Your task to perform on an android device: Open the web browser Image 0: 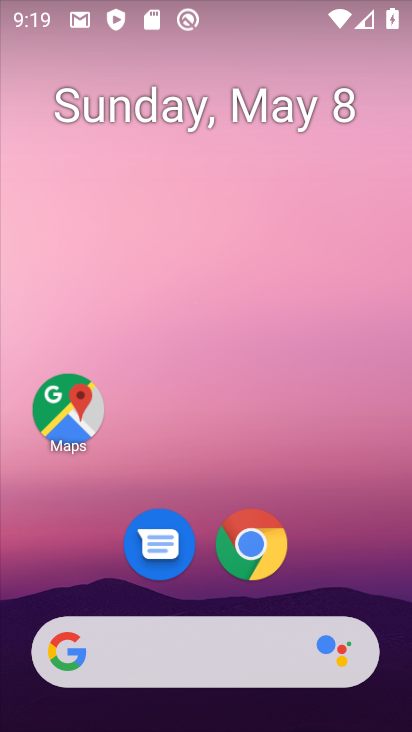
Step 0: click (291, 532)
Your task to perform on an android device: Open the web browser Image 1: 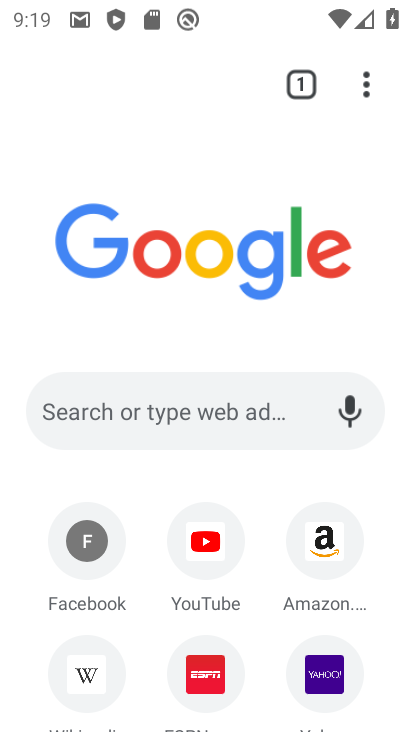
Step 1: task complete